Your task to perform on an android device: Set the phone to "Do not disturb". Image 0: 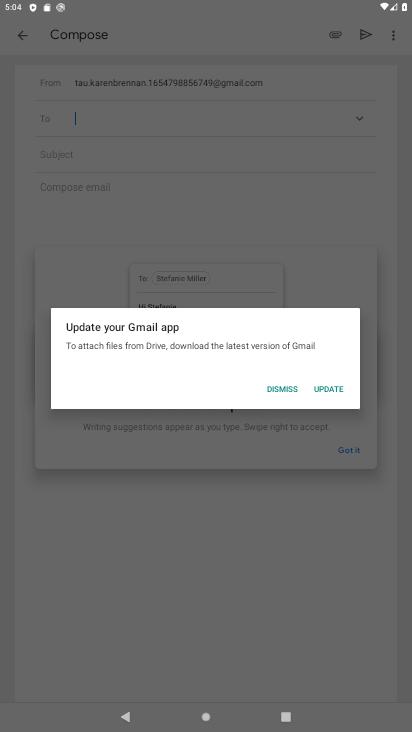
Step 0: press home button
Your task to perform on an android device: Set the phone to "Do not disturb". Image 1: 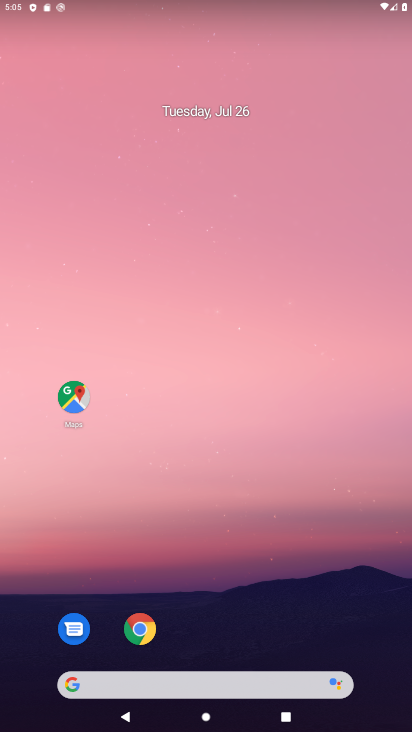
Step 1: drag from (185, 412) to (243, 174)
Your task to perform on an android device: Set the phone to "Do not disturb". Image 2: 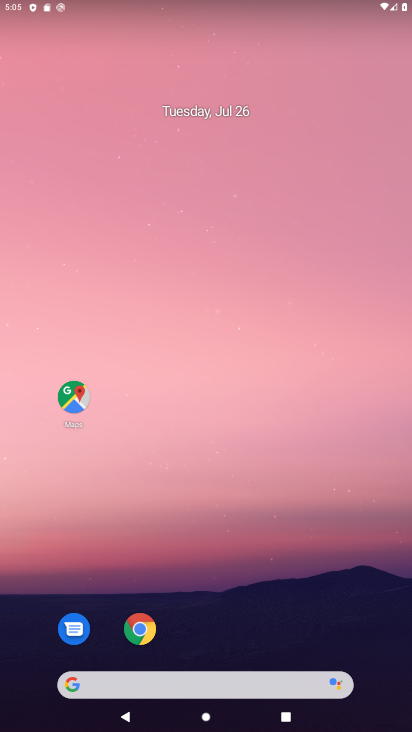
Step 2: drag from (220, 444) to (248, 159)
Your task to perform on an android device: Set the phone to "Do not disturb". Image 3: 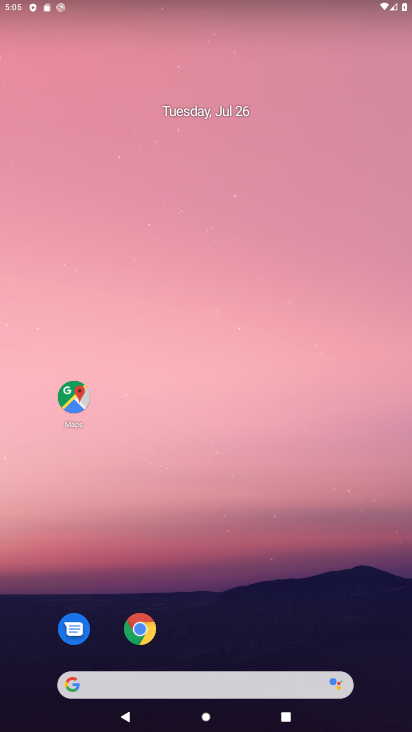
Step 3: drag from (173, 578) to (186, 239)
Your task to perform on an android device: Set the phone to "Do not disturb". Image 4: 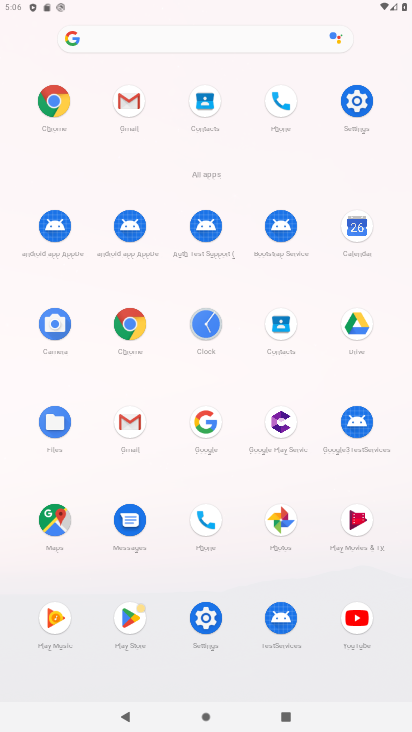
Step 4: click (357, 102)
Your task to perform on an android device: Set the phone to "Do not disturb". Image 5: 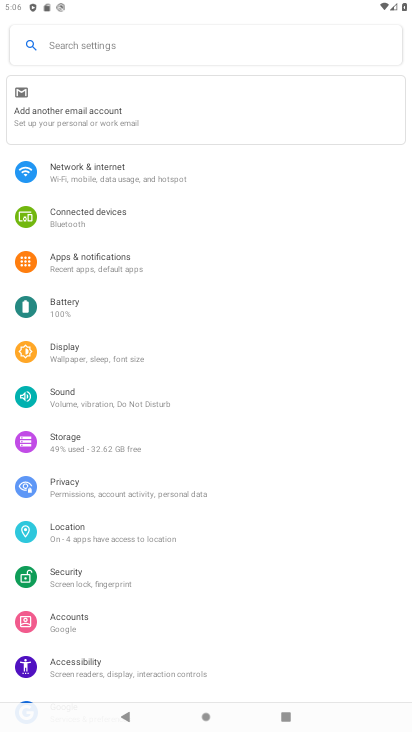
Step 5: click (90, 401)
Your task to perform on an android device: Set the phone to "Do not disturb". Image 6: 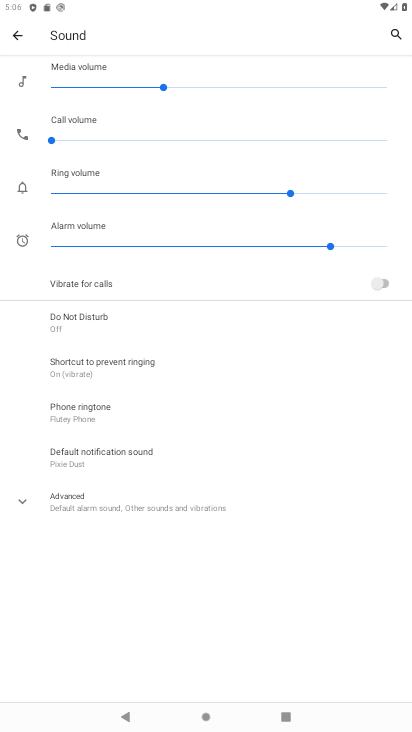
Step 6: click (79, 325)
Your task to perform on an android device: Set the phone to "Do not disturb". Image 7: 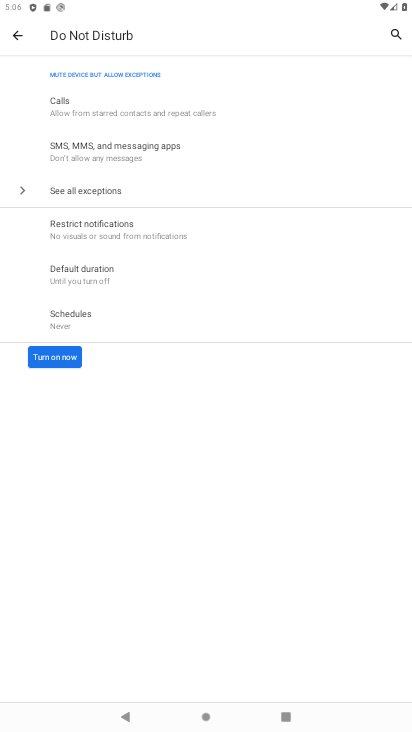
Step 7: click (46, 359)
Your task to perform on an android device: Set the phone to "Do not disturb". Image 8: 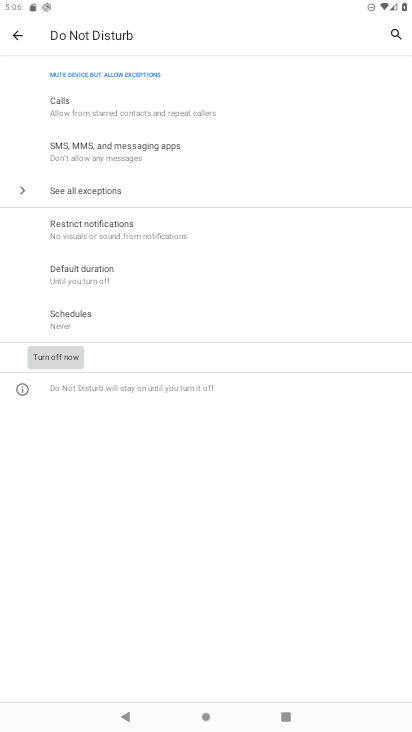
Step 8: task complete